Your task to perform on an android device: turn off notifications in google photos Image 0: 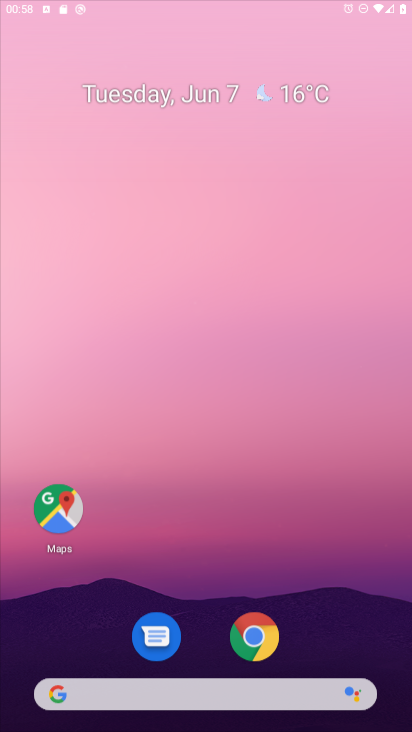
Step 0: drag from (281, 647) to (211, 237)
Your task to perform on an android device: turn off notifications in google photos Image 1: 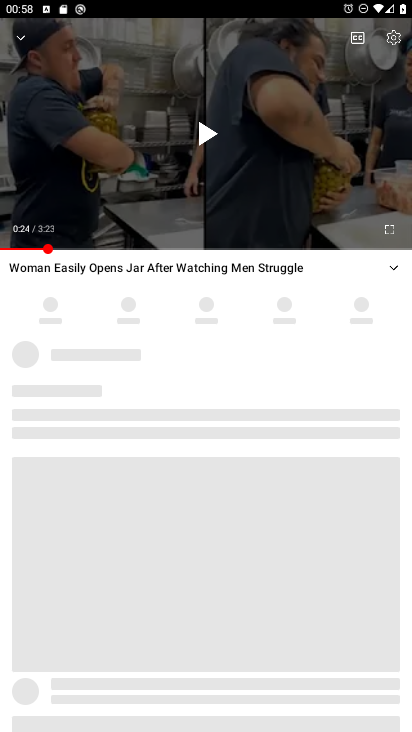
Step 1: press home button
Your task to perform on an android device: turn off notifications in google photos Image 2: 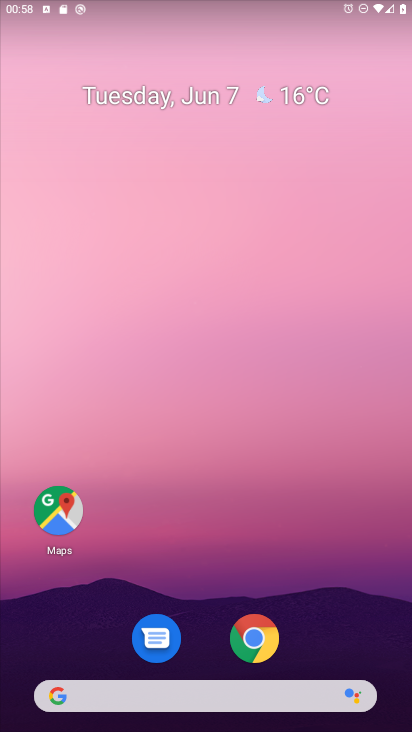
Step 2: drag from (227, 706) to (235, 248)
Your task to perform on an android device: turn off notifications in google photos Image 3: 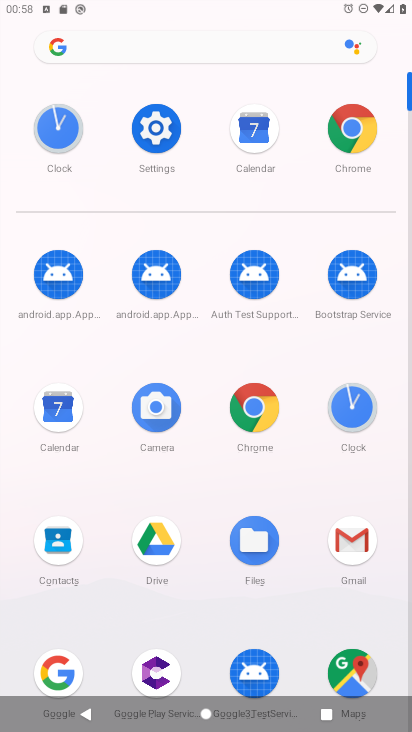
Step 3: drag from (279, 618) to (285, 451)
Your task to perform on an android device: turn off notifications in google photos Image 4: 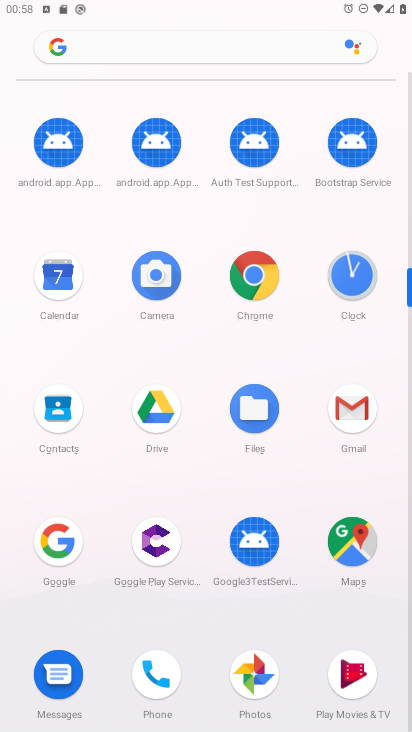
Step 4: click (245, 665)
Your task to perform on an android device: turn off notifications in google photos Image 5: 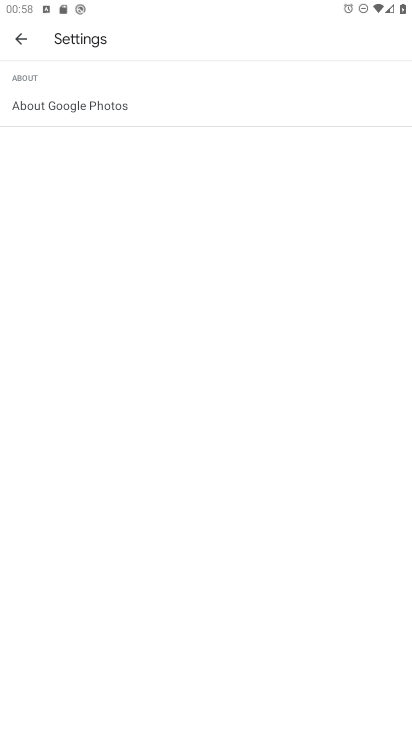
Step 5: click (18, 40)
Your task to perform on an android device: turn off notifications in google photos Image 6: 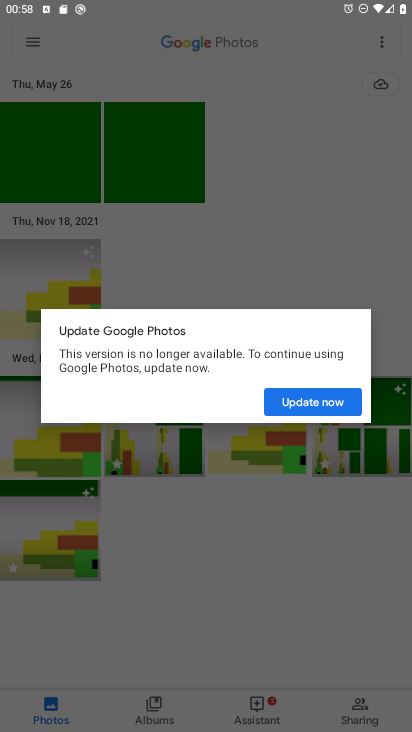
Step 6: click (299, 401)
Your task to perform on an android device: turn off notifications in google photos Image 7: 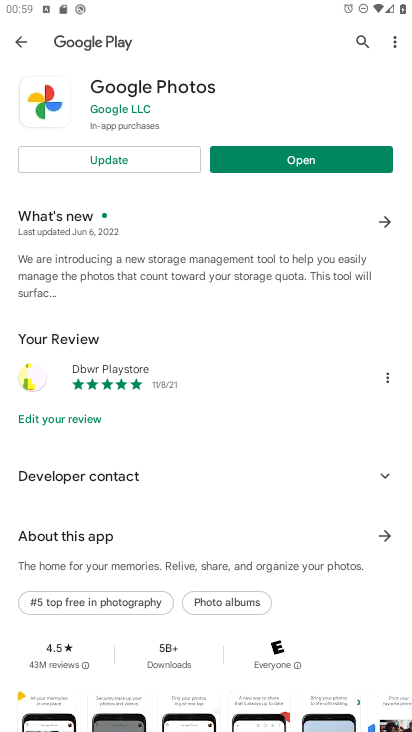
Step 7: drag from (271, 156) to (110, 401)
Your task to perform on an android device: turn off notifications in google photos Image 8: 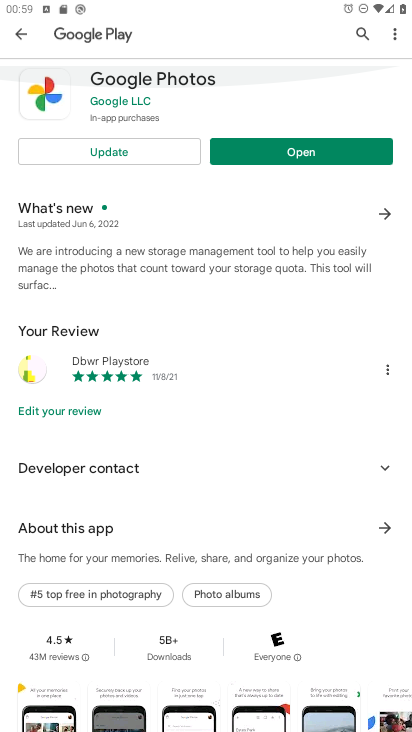
Step 8: click (109, 164)
Your task to perform on an android device: turn off notifications in google photos Image 9: 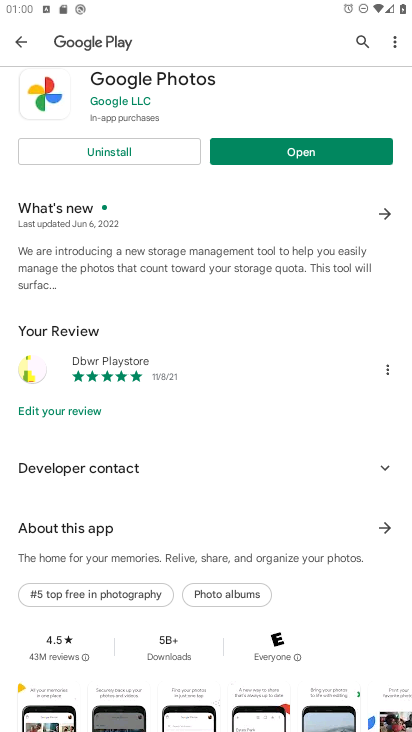
Step 9: click (288, 160)
Your task to perform on an android device: turn off notifications in google photos Image 10: 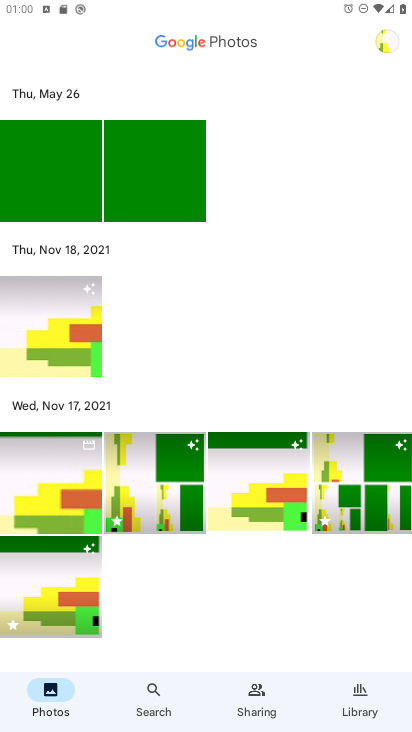
Step 10: click (385, 49)
Your task to perform on an android device: turn off notifications in google photos Image 11: 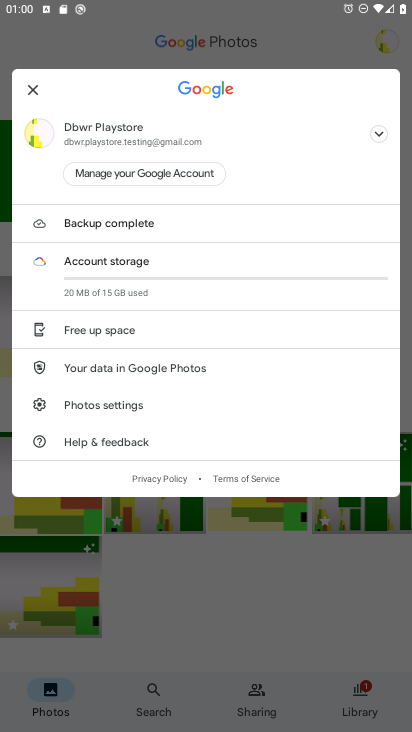
Step 11: click (104, 405)
Your task to perform on an android device: turn off notifications in google photos Image 12: 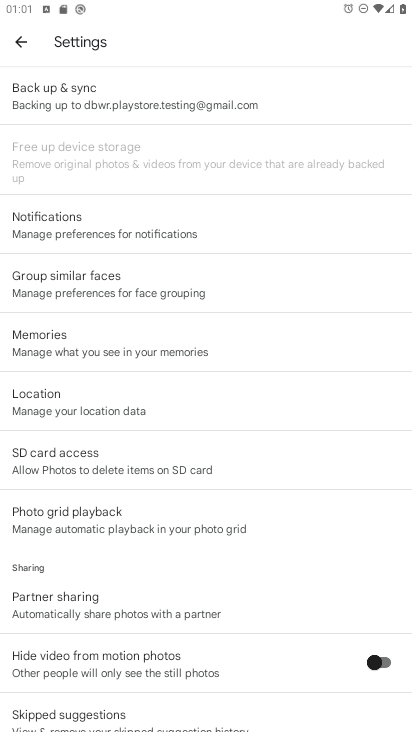
Step 12: click (88, 226)
Your task to perform on an android device: turn off notifications in google photos Image 13: 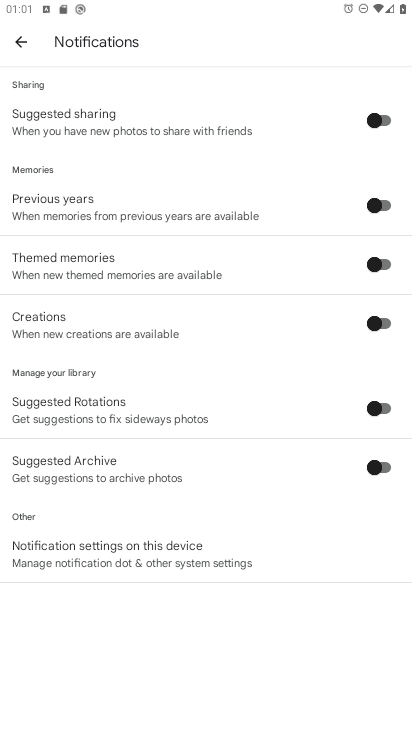
Step 13: click (217, 547)
Your task to perform on an android device: turn off notifications in google photos Image 14: 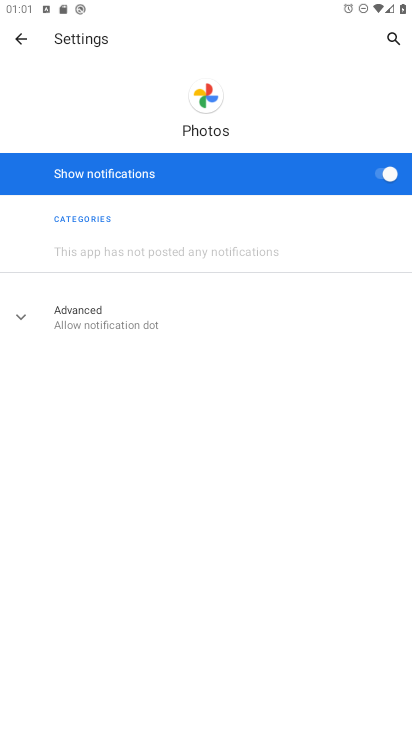
Step 14: click (370, 186)
Your task to perform on an android device: turn off notifications in google photos Image 15: 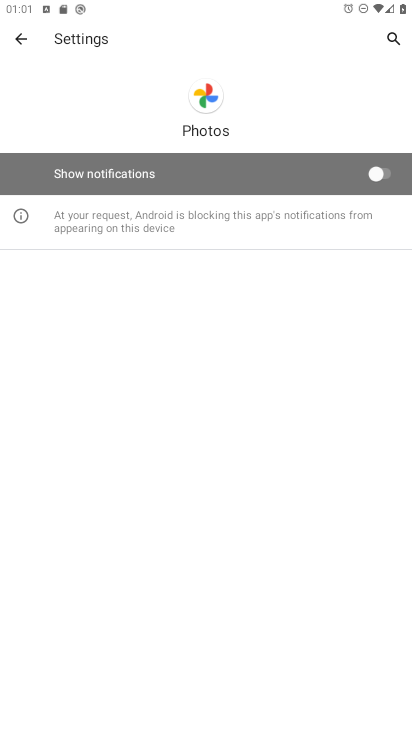
Step 15: task complete